Your task to perform on an android device: open device folders in google photos Image 0: 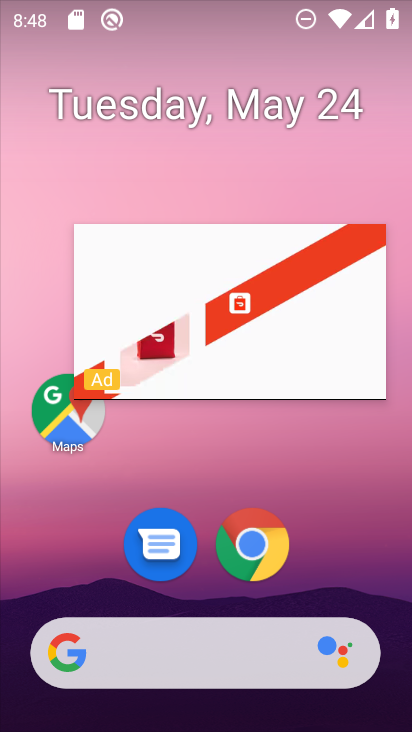
Step 0: click (349, 238)
Your task to perform on an android device: open device folders in google photos Image 1: 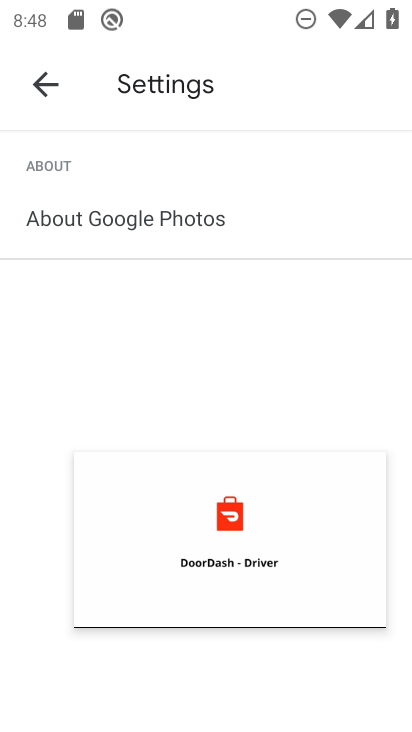
Step 1: drag from (296, 499) to (396, 521)
Your task to perform on an android device: open device folders in google photos Image 2: 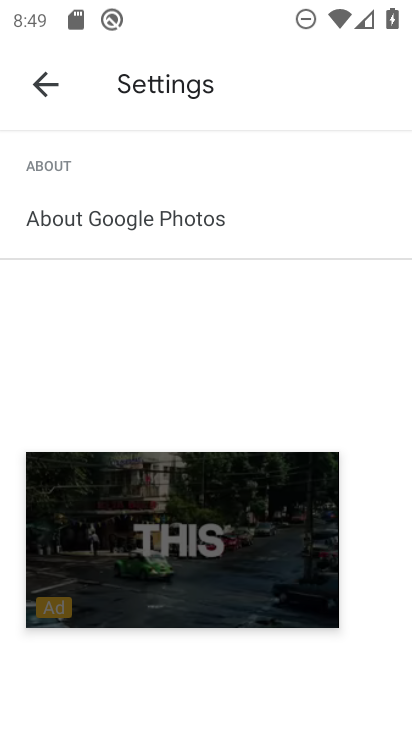
Step 2: drag from (158, 479) to (277, 696)
Your task to perform on an android device: open device folders in google photos Image 3: 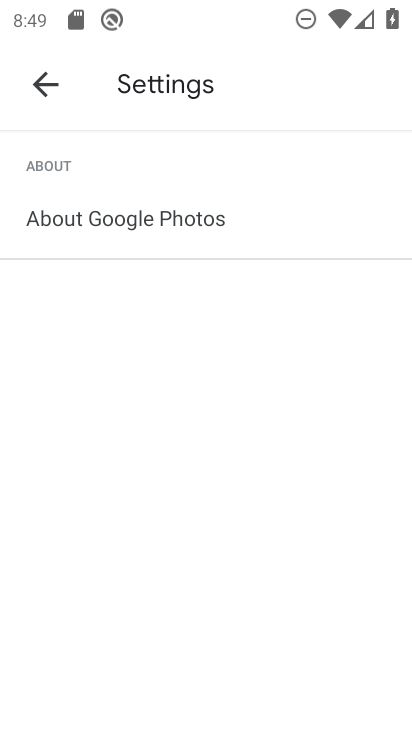
Step 3: press home button
Your task to perform on an android device: open device folders in google photos Image 4: 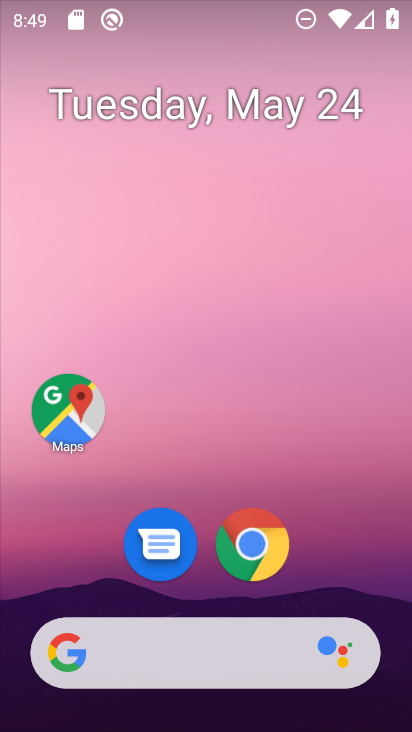
Step 4: drag from (393, 592) to (227, 38)
Your task to perform on an android device: open device folders in google photos Image 5: 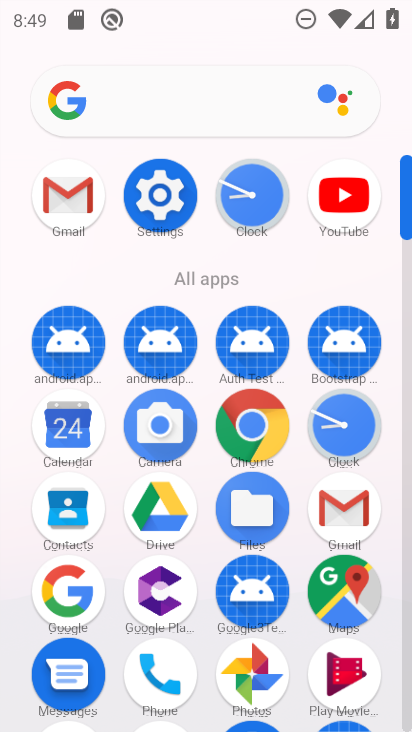
Step 5: click (251, 659)
Your task to perform on an android device: open device folders in google photos Image 6: 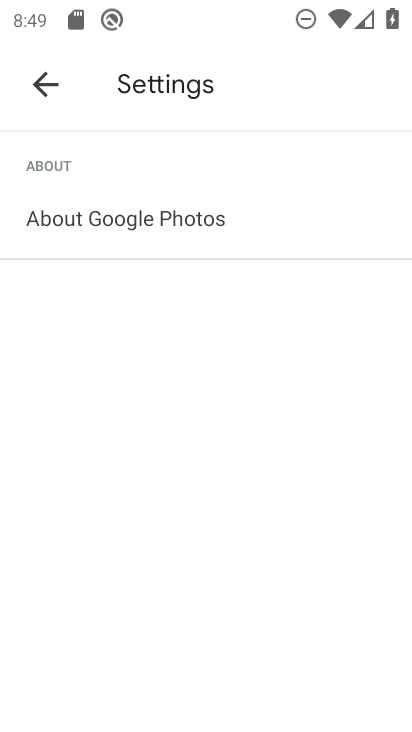
Step 6: click (42, 83)
Your task to perform on an android device: open device folders in google photos Image 7: 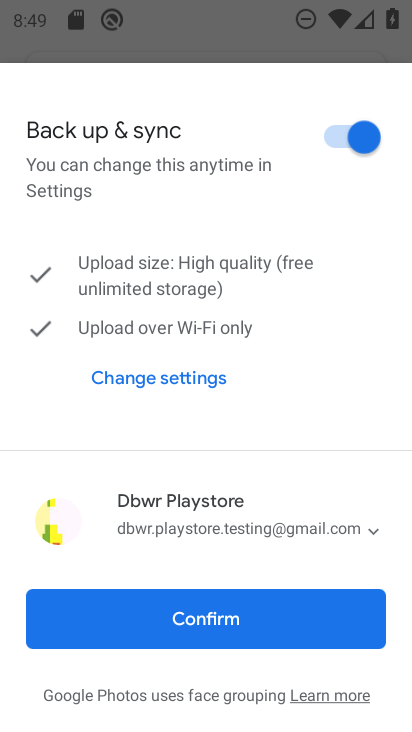
Step 7: click (261, 622)
Your task to perform on an android device: open device folders in google photos Image 8: 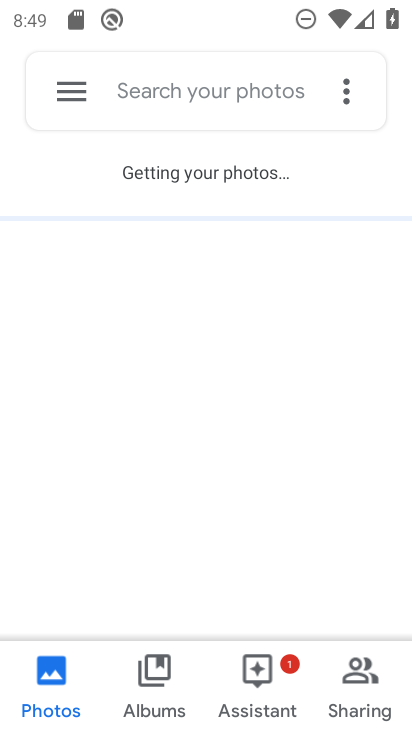
Step 8: click (69, 90)
Your task to perform on an android device: open device folders in google photos Image 9: 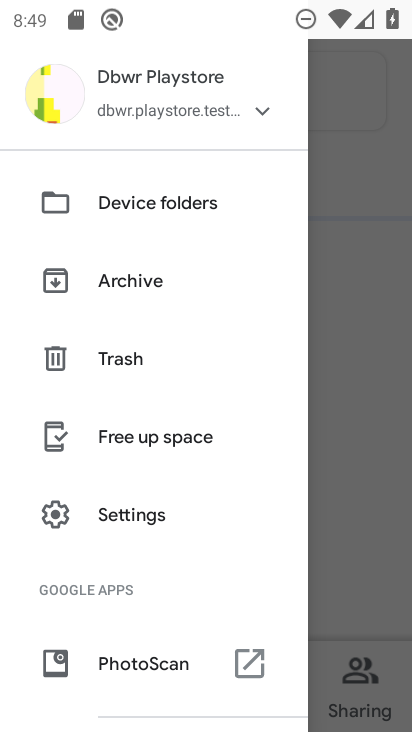
Step 9: click (184, 202)
Your task to perform on an android device: open device folders in google photos Image 10: 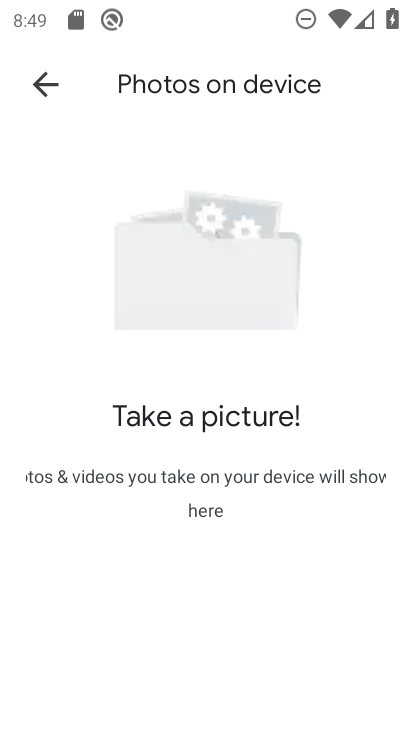
Step 10: task complete